Your task to perform on an android device: star an email in the gmail app Image 0: 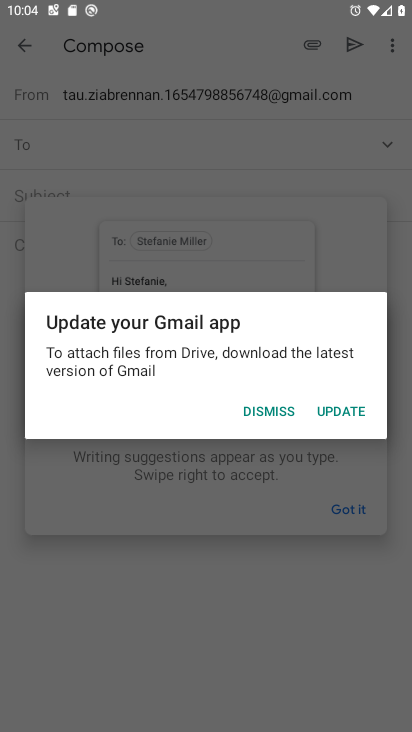
Step 0: press home button
Your task to perform on an android device: star an email in the gmail app Image 1: 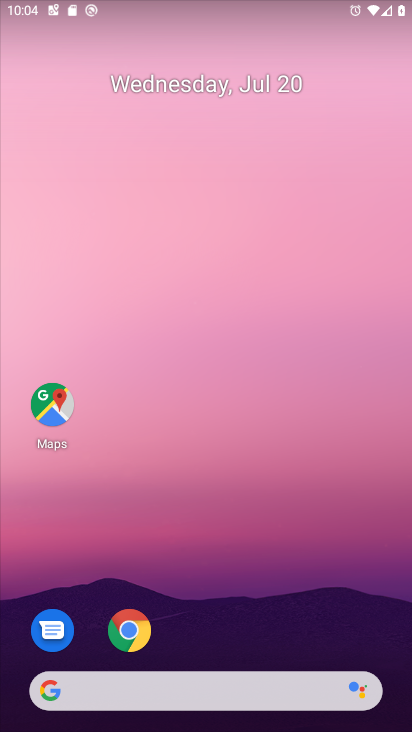
Step 1: drag from (175, 690) to (105, 58)
Your task to perform on an android device: star an email in the gmail app Image 2: 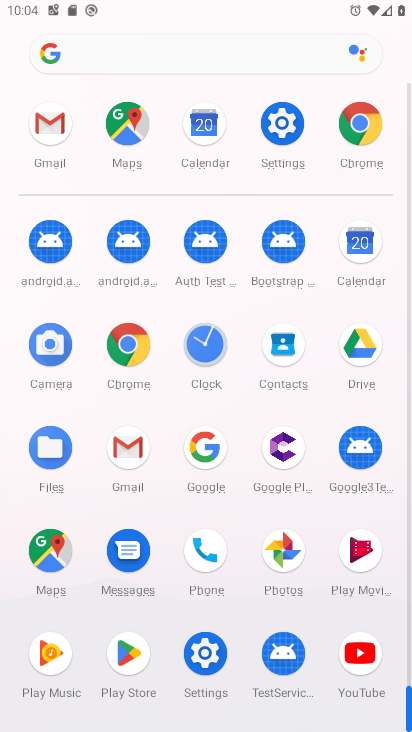
Step 2: click (137, 450)
Your task to perform on an android device: star an email in the gmail app Image 3: 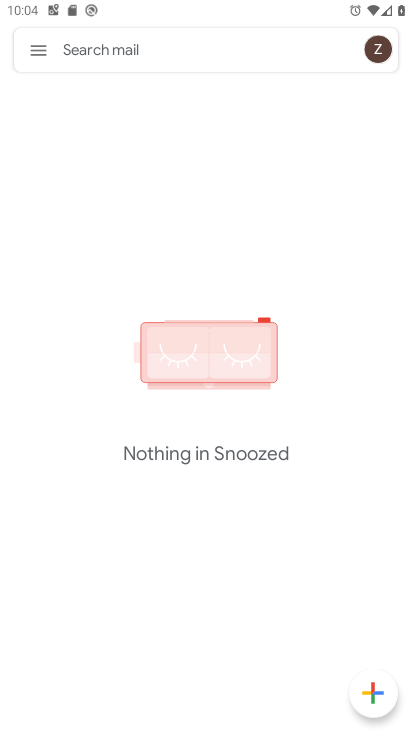
Step 3: click (41, 59)
Your task to perform on an android device: star an email in the gmail app Image 4: 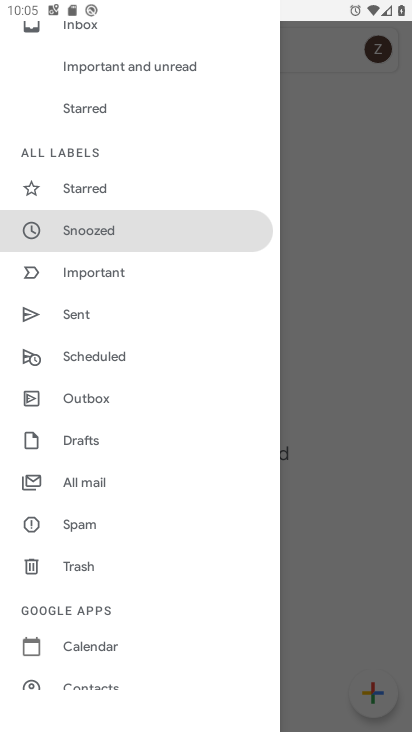
Step 4: click (94, 482)
Your task to perform on an android device: star an email in the gmail app Image 5: 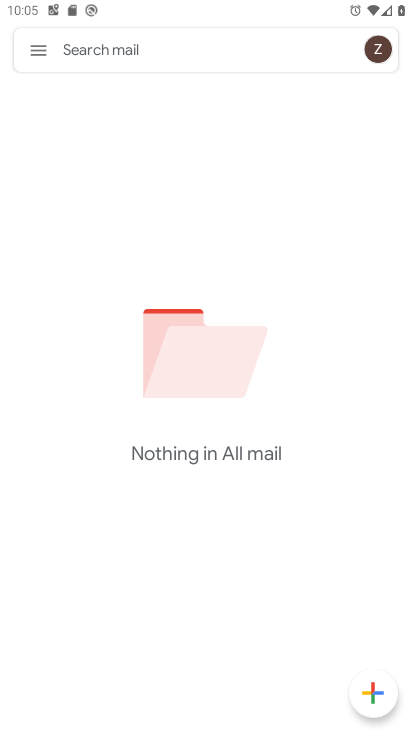
Step 5: task complete